Your task to perform on an android device: Open Google Image 0: 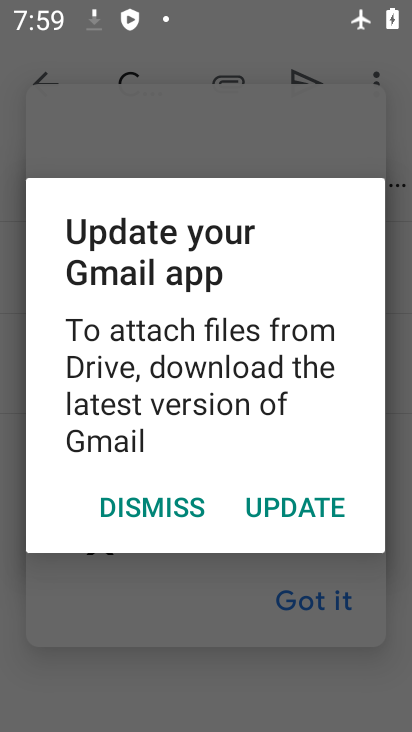
Step 0: press home button
Your task to perform on an android device: Open Google Image 1: 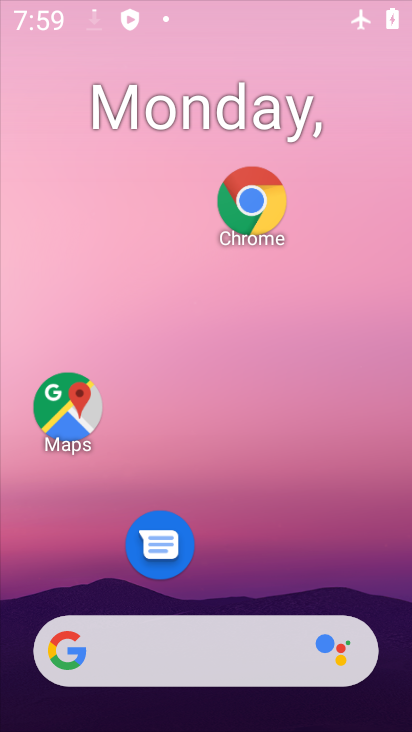
Step 1: press home button
Your task to perform on an android device: Open Google Image 2: 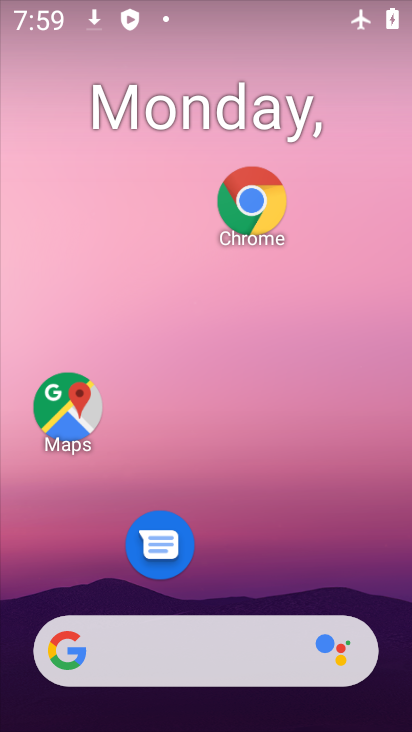
Step 2: drag from (254, 564) to (254, 162)
Your task to perform on an android device: Open Google Image 3: 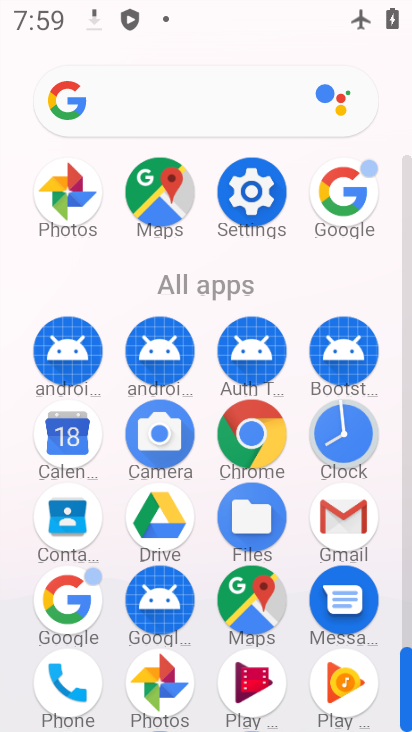
Step 3: click (74, 599)
Your task to perform on an android device: Open Google Image 4: 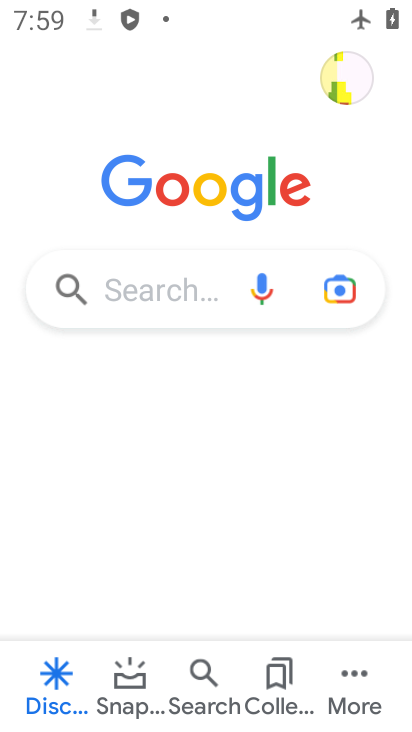
Step 4: task complete